Your task to perform on an android device: create a new album in the google photos Image 0: 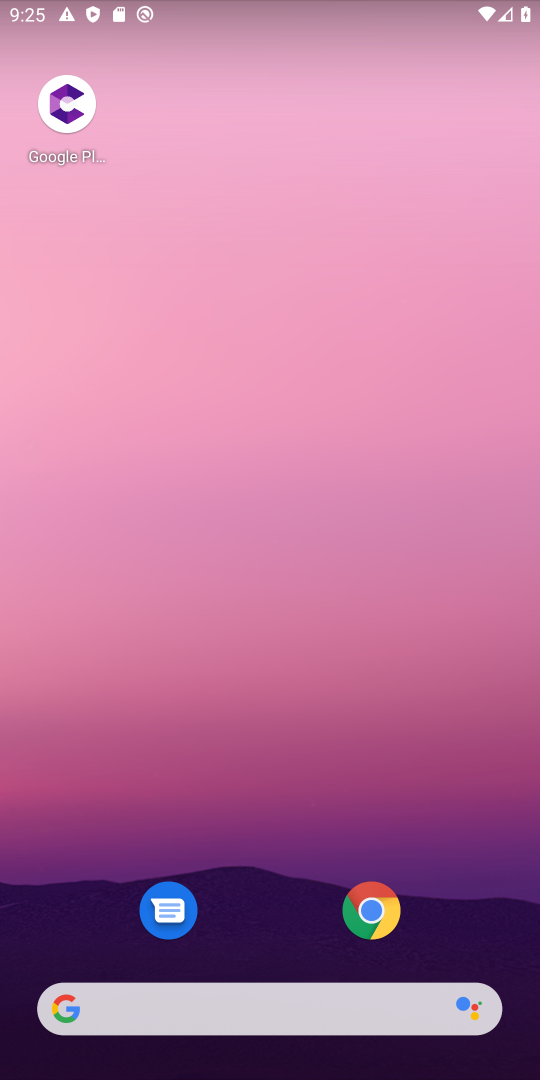
Step 0: drag from (202, 985) to (223, 467)
Your task to perform on an android device: create a new album in the google photos Image 1: 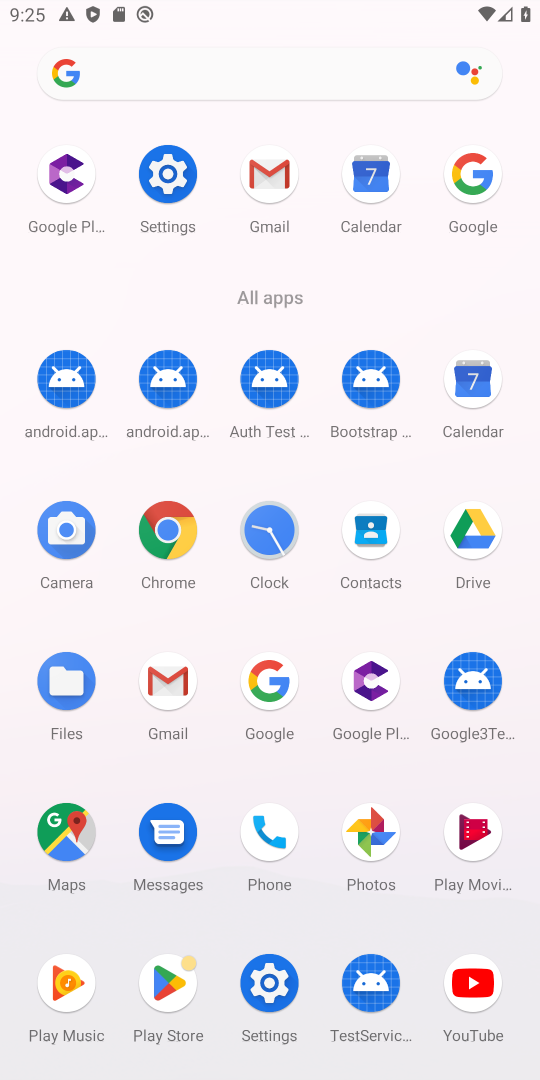
Step 1: click (365, 850)
Your task to perform on an android device: create a new album in the google photos Image 2: 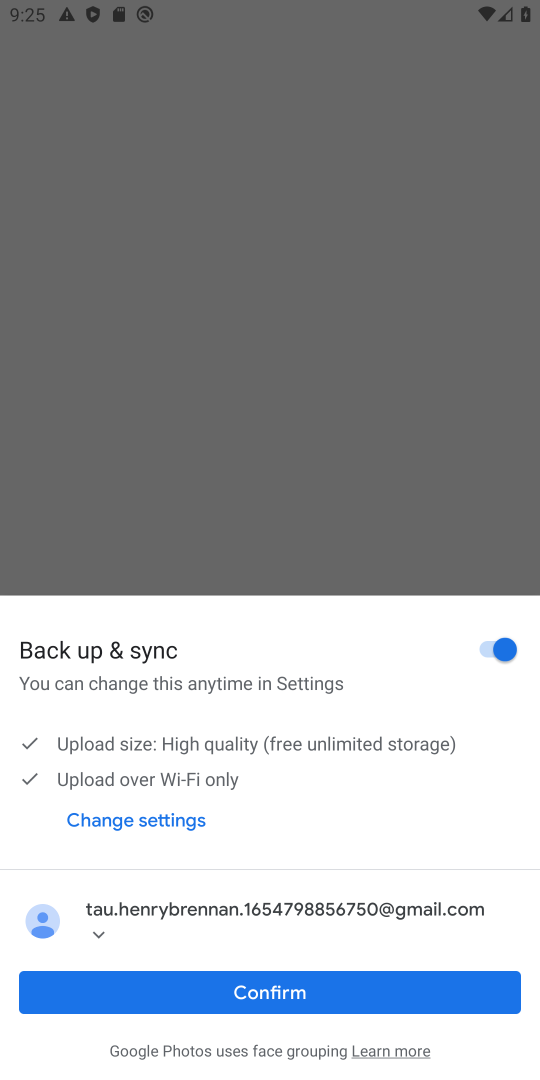
Step 2: click (287, 993)
Your task to perform on an android device: create a new album in the google photos Image 3: 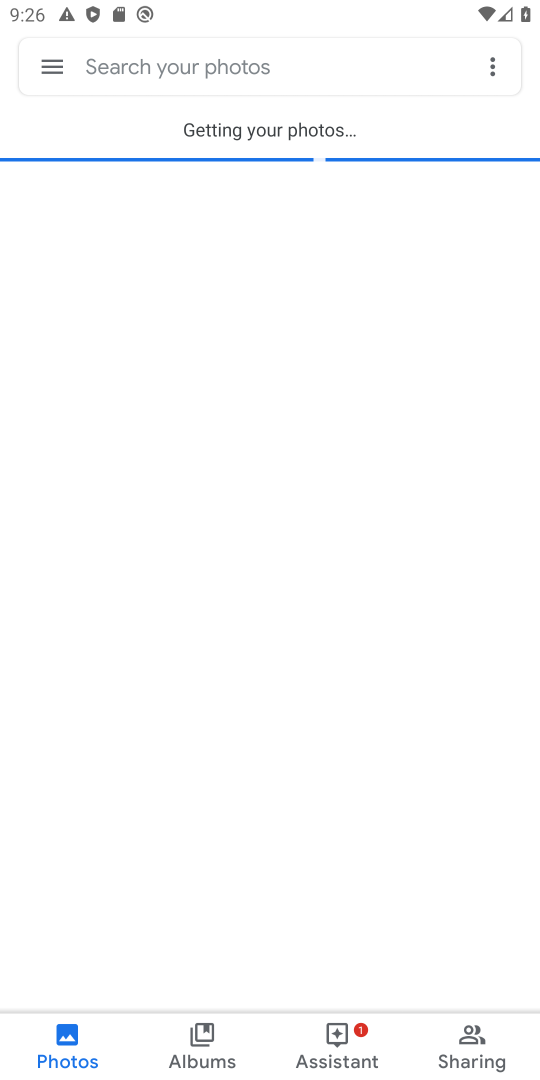
Step 3: task complete